Your task to perform on an android device: clear history in the chrome app Image 0: 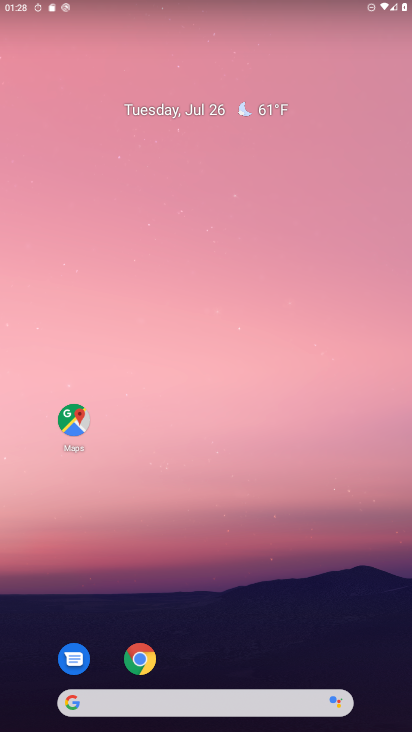
Step 0: click (134, 656)
Your task to perform on an android device: clear history in the chrome app Image 1: 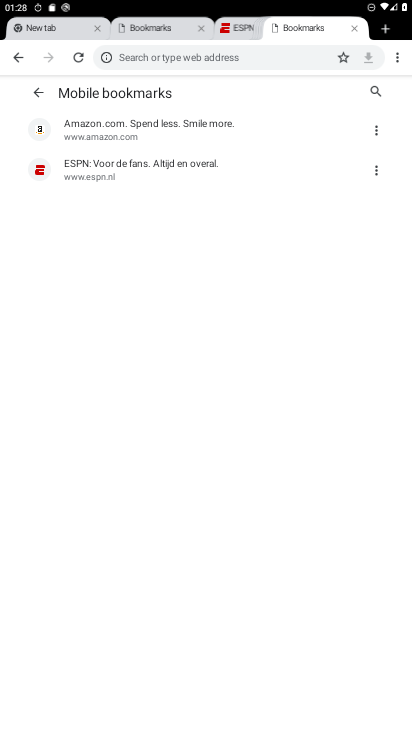
Step 1: click (20, 62)
Your task to perform on an android device: clear history in the chrome app Image 2: 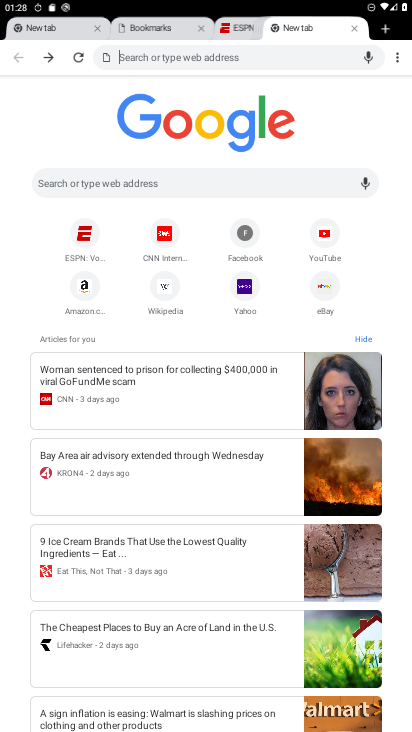
Step 2: click (398, 56)
Your task to perform on an android device: clear history in the chrome app Image 3: 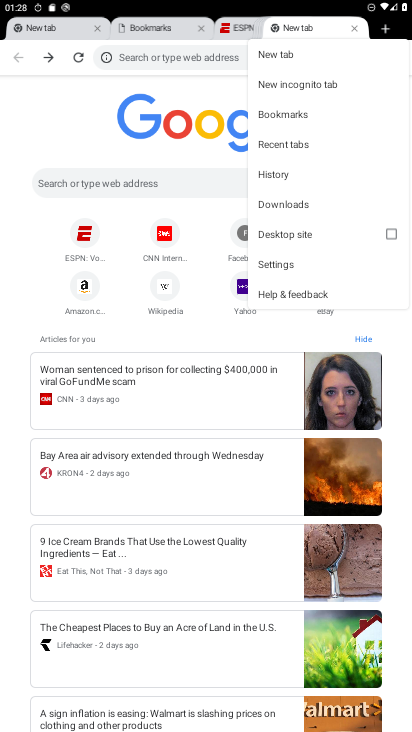
Step 3: click (271, 171)
Your task to perform on an android device: clear history in the chrome app Image 4: 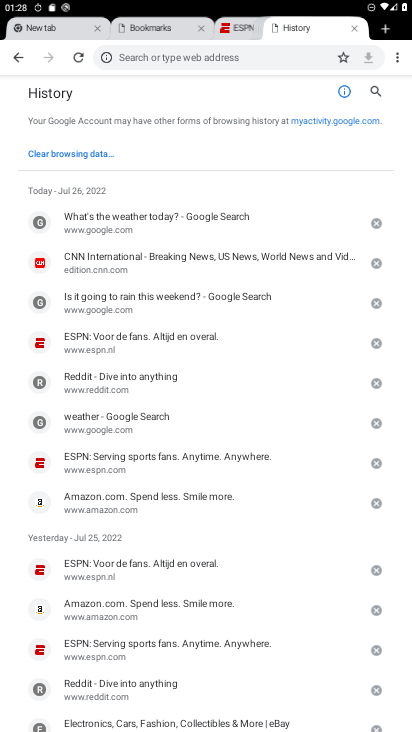
Step 4: click (67, 156)
Your task to perform on an android device: clear history in the chrome app Image 5: 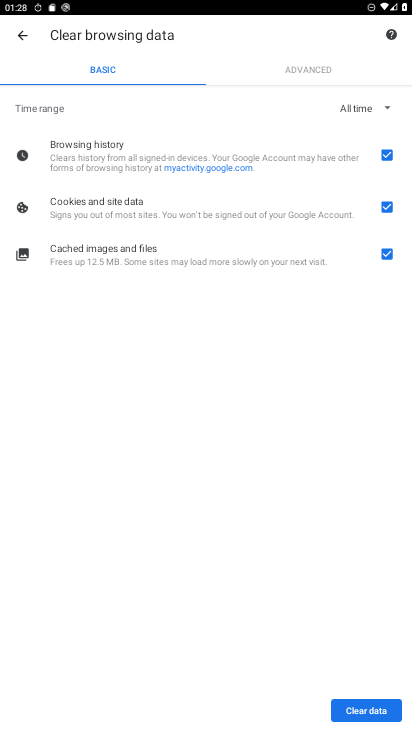
Step 5: click (390, 209)
Your task to perform on an android device: clear history in the chrome app Image 6: 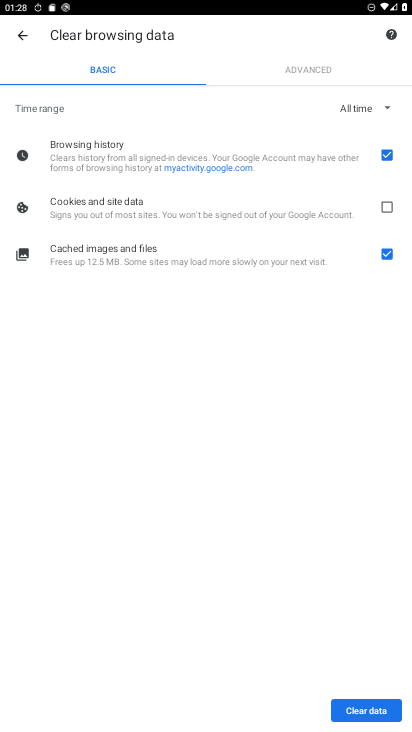
Step 6: click (383, 256)
Your task to perform on an android device: clear history in the chrome app Image 7: 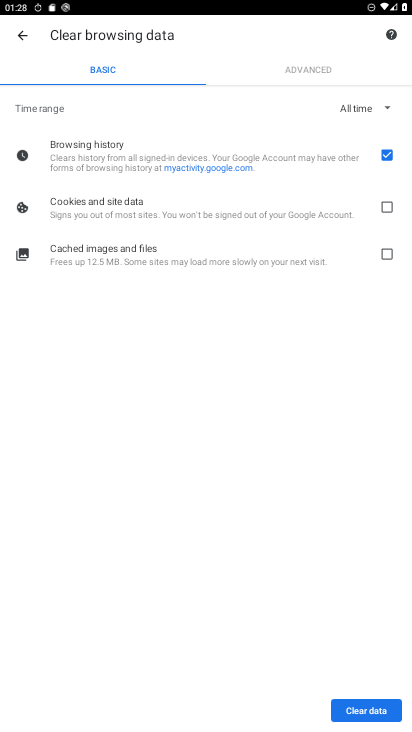
Step 7: click (371, 714)
Your task to perform on an android device: clear history in the chrome app Image 8: 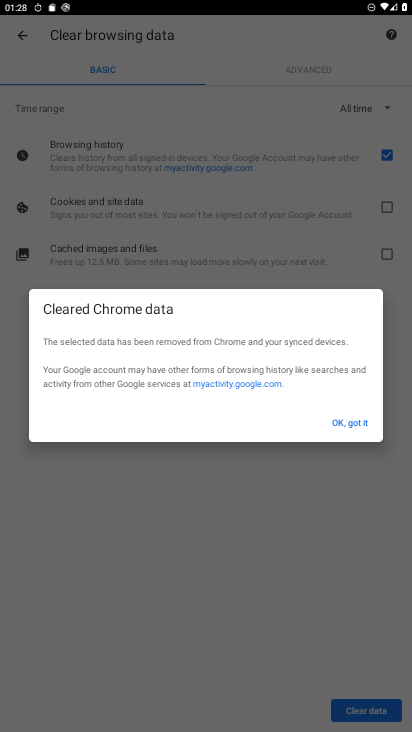
Step 8: click (353, 431)
Your task to perform on an android device: clear history in the chrome app Image 9: 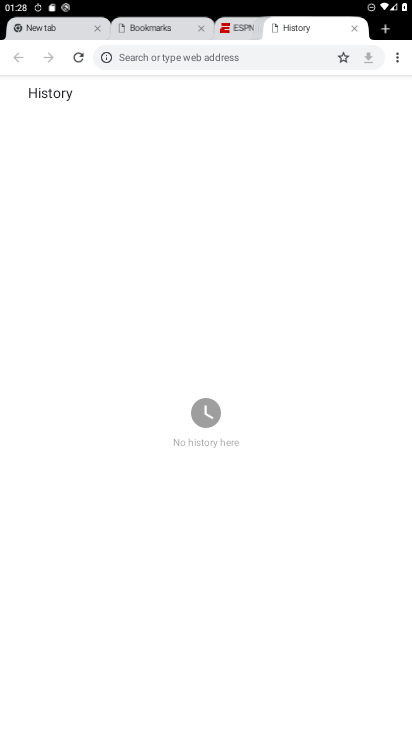
Step 9: task complete